Your task to perform on an android device: toggle airplane mode Image 0: 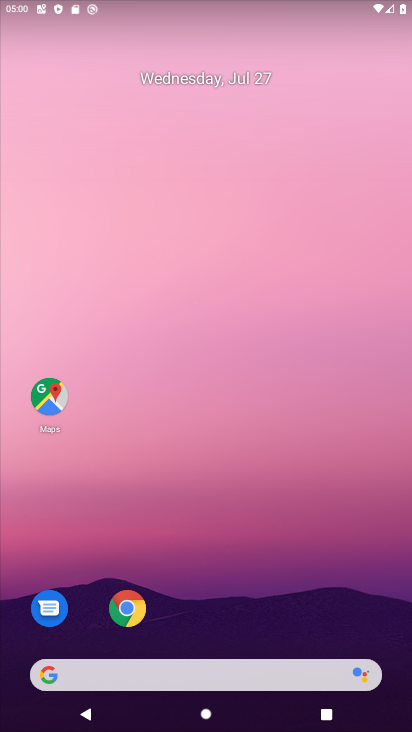
Step 0: press home button
Your task to perform on an android device: toggle airplane mode Image 1: 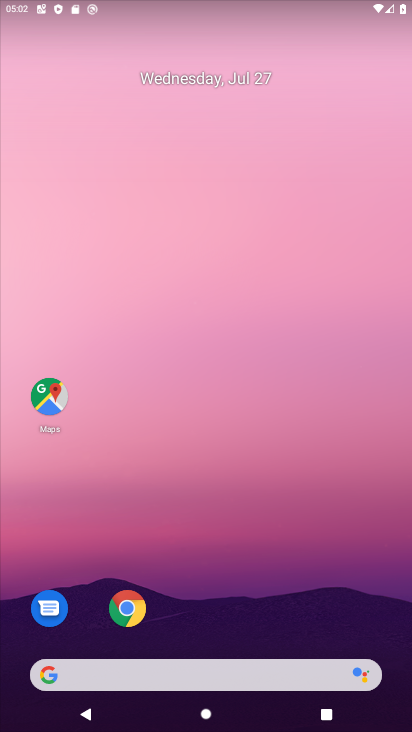
Step 1: drag from (216, 13) to (311, 665)
Your task to perform on an android device: toggle airplane mode Image 2: 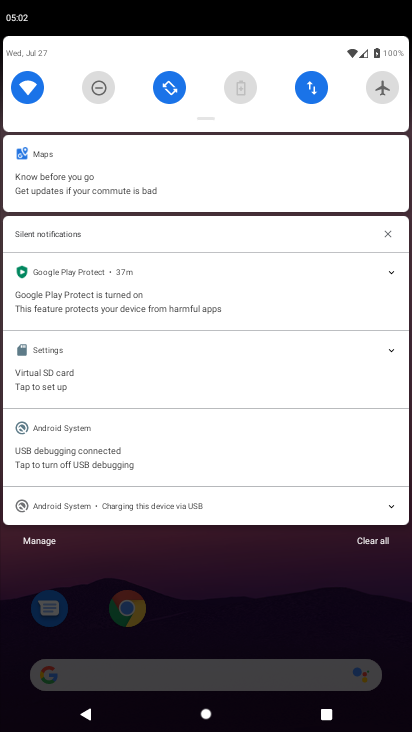
Step 2: click (386, 88)
Your task to perform on an android device: toggle airplane mode Image 3: 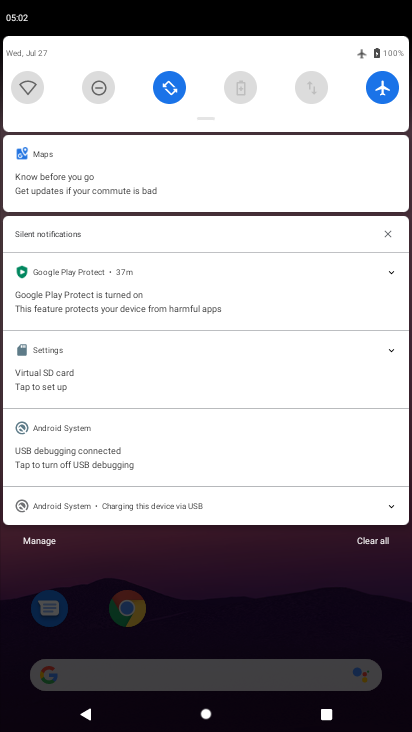
Step 3: task complete